Your task to perform on an android device: Go to notification settings Image 0: 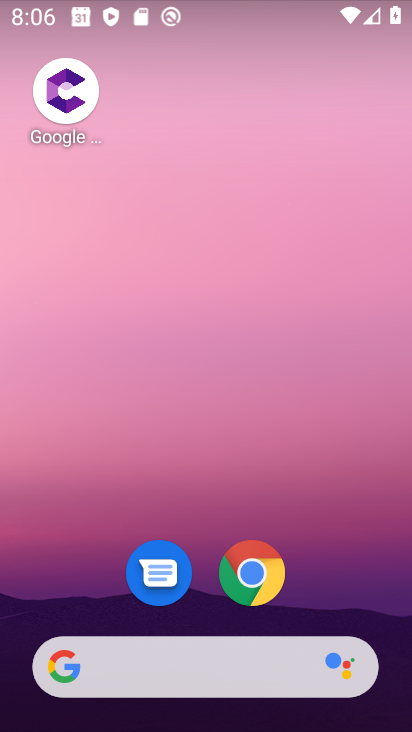
Step 0: drag from (244, 650) to (319, 140)
Your task to perform on an android device: Go to notification settings Image 1: 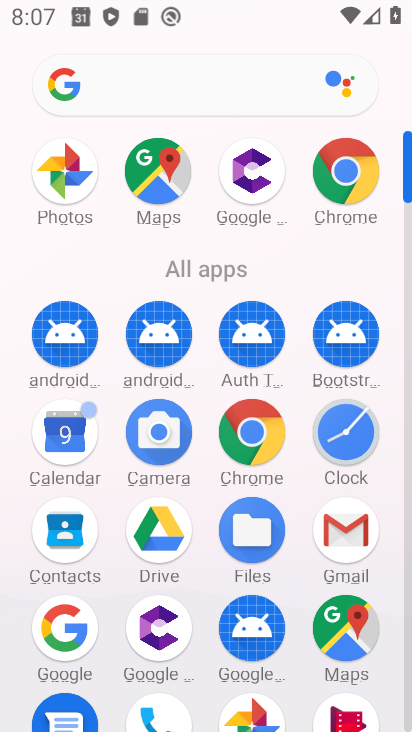
Step 1: drag from (297, 512) to (323, 213)
Your task to perform on an android device: Go to notification settings Image 2: 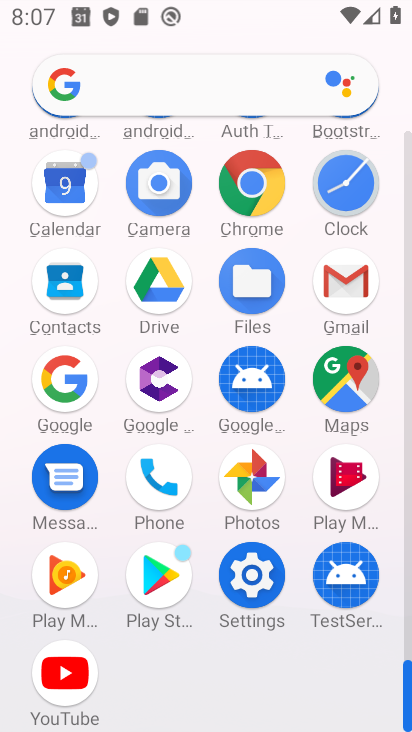
Step 2: click (259, 584)
Your task to perform on an android device: Go to notification settings Image 3: 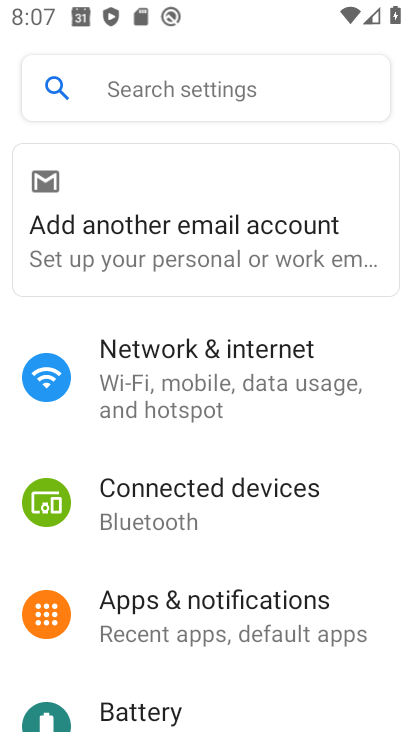
Step 3: click (278, 617)
Your task to perform on an android device: Go to notification settings Image 4: 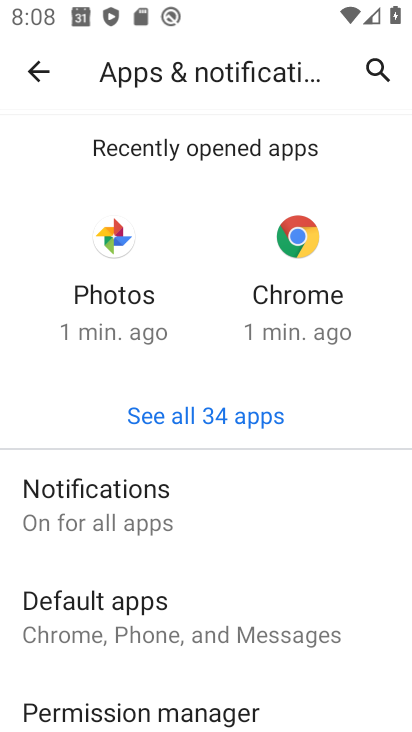
Step 4: click (231, 492)
Your task to perform on an android device: Go to notification settings Image 5: 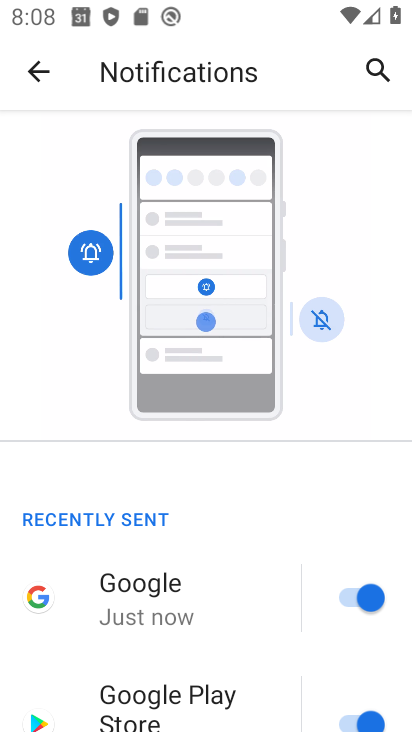
Step 5: task complete